Your task to perform on an android device: turn off wifi Image 0: 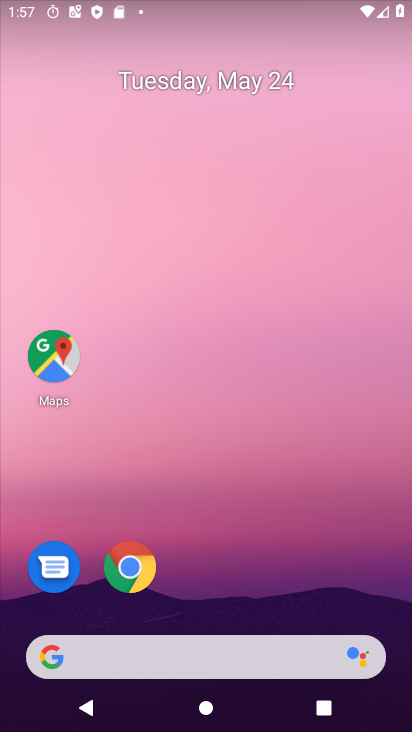
Step 0: drag from (210, 592) to (191, 2)
Your task to perform on an android device: turn off wifi Image 1: 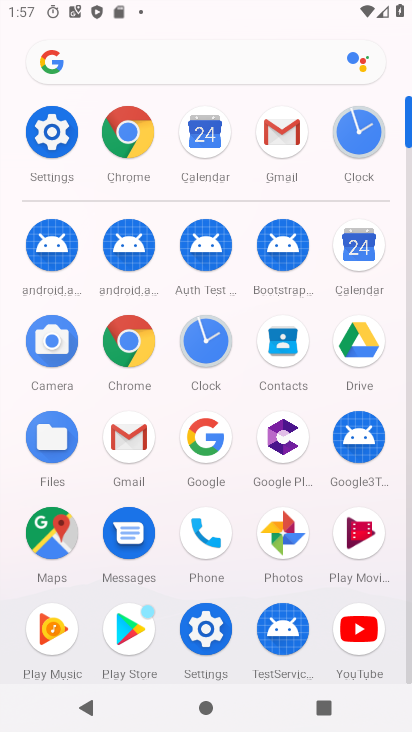
Step 1: click (48, 143)
Your task to perform on an android device: turn off wifi Image 2: 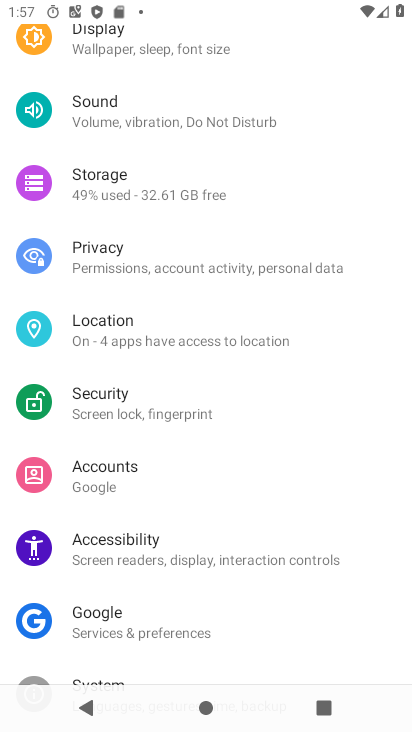
Step 2: drag from (238, 211) to (220, 540)
Your task to perform on an android device: turn off wifi Image 3: 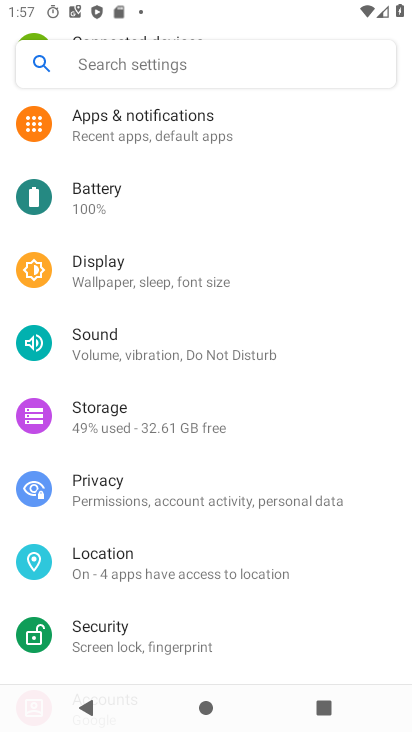
Step 3: drag from (176, 201) to (189, 644)
Your task to perform on an android device: turn off wifi Image 4: 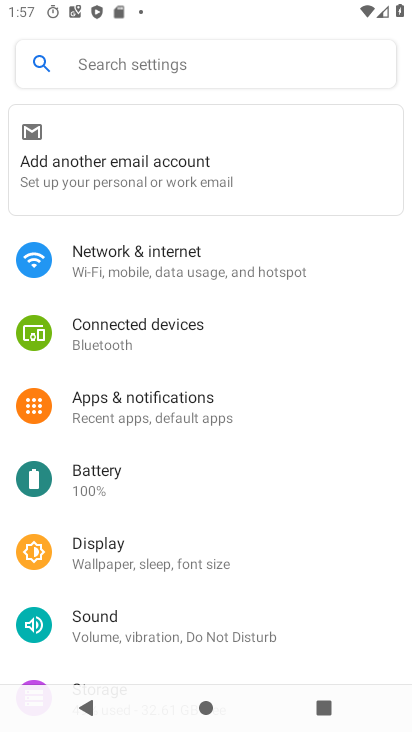
Step 4: click (189, 273)
Your task to perform on an android device: turn off wifi Image 5: 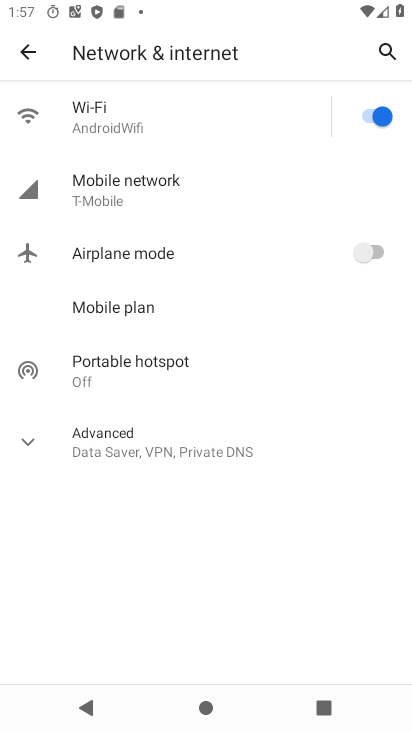
Step 5: click (355, 123)
Your task to perform on an android device: turn off wifi Image 6: 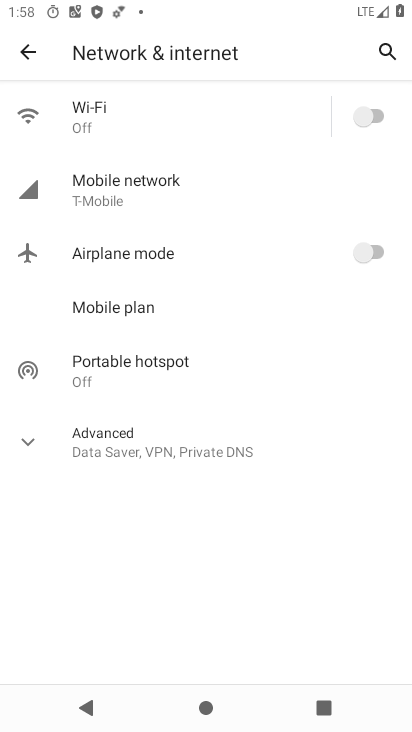
Step 6: task complete